Your task to perform on an android device: create a new album in the google photos Image 0: 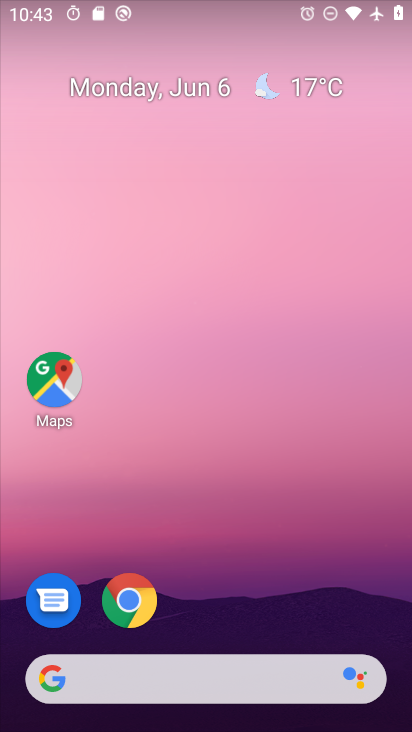
Step 0: press home button
Your task to perform on an android device: create a new album in the google photos Image 1: 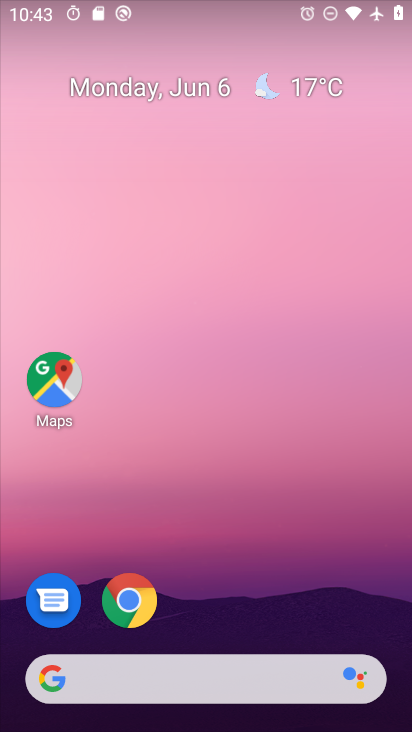
Step 1: drag from (279, 567) to (238, 66)
Your task to perform on an android device: create a new album in the google photos Image 2: 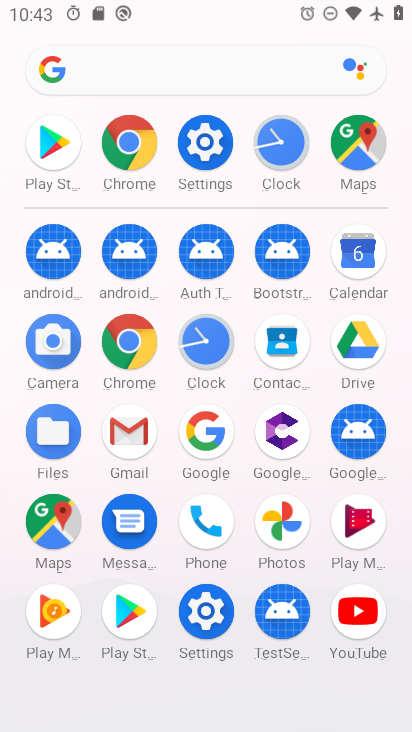
Step 2: click (286, 523)
Your task to perform on an android device: create a new album in the google photos Image 3: 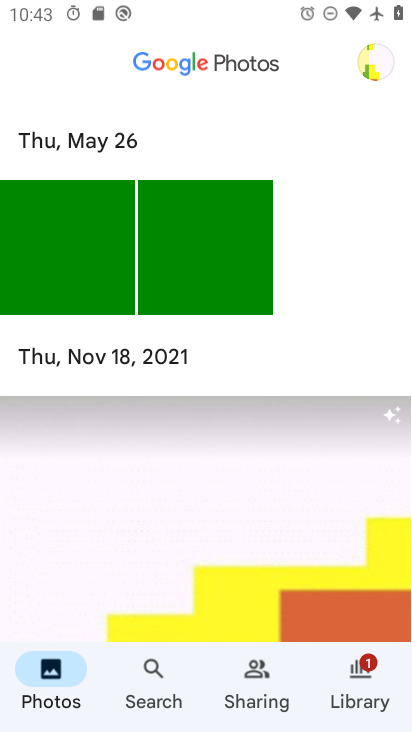
Step 3: click (369, 679)
Your task to perform on an android device: create a new album in the google photos Image 4: 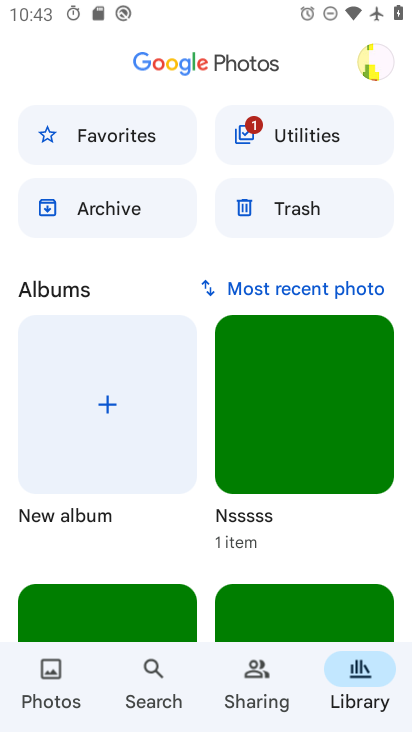
Step 4: click (115, 401)
Your task to perform on an android device: create a new album in the google photos Image 5: 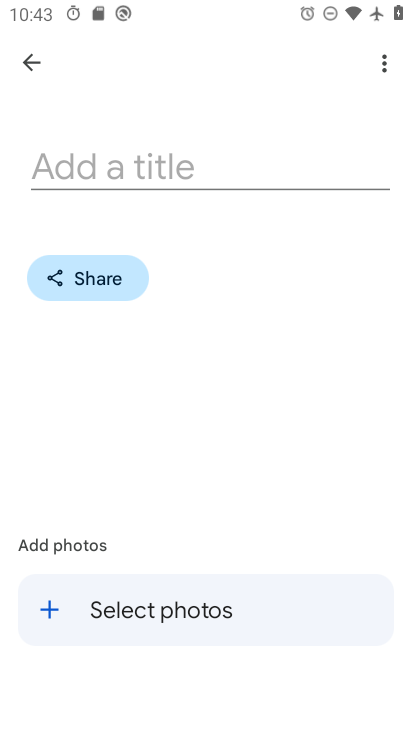
Step 5: click (184, 174)
Your task to perform on an android device: create a new album in the google photos Image 6: 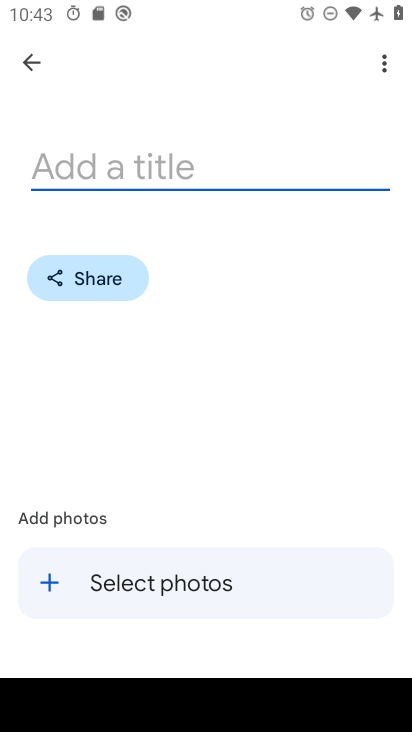
Step 6: type "fggfghhmj"
Your task to perform on an android device: create a new album in the google photos Image 7: 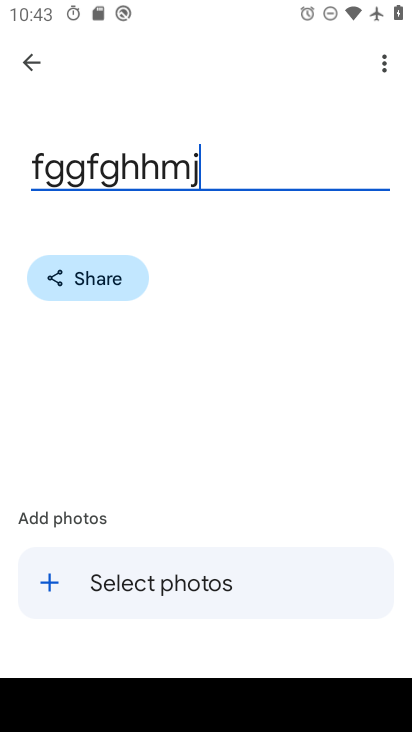
Step 7: type ""
Your task to perform on an android device: create a new album in the google photos Image 8: 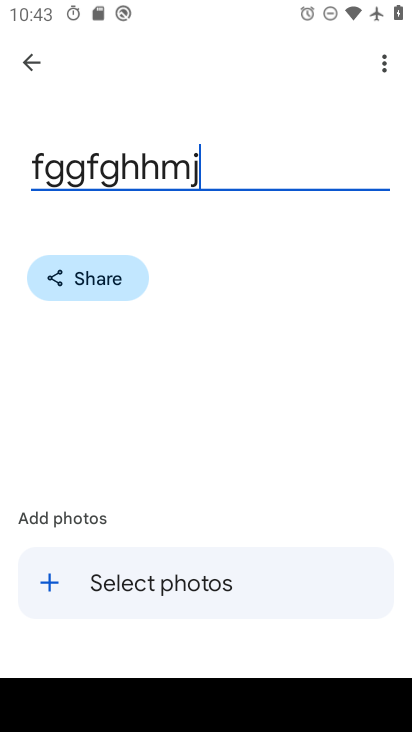
Step 8: click (176, 566)
Your task to perform on an android device: create a new album in the google photos Image 9: 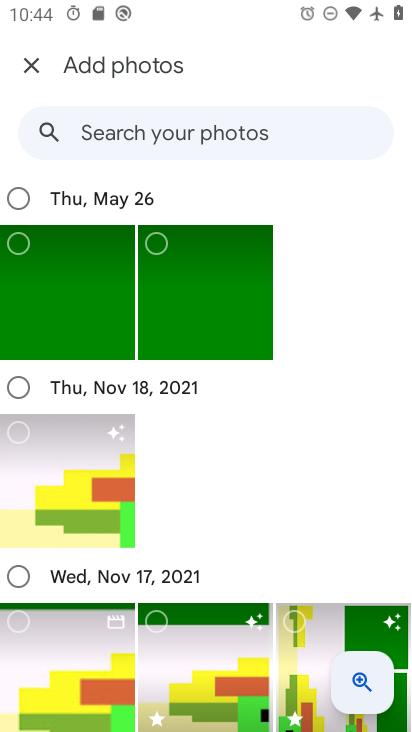
Step 9: click (70, 326)
Your task to perform on an android device: create a new album in the google photos Image 10: 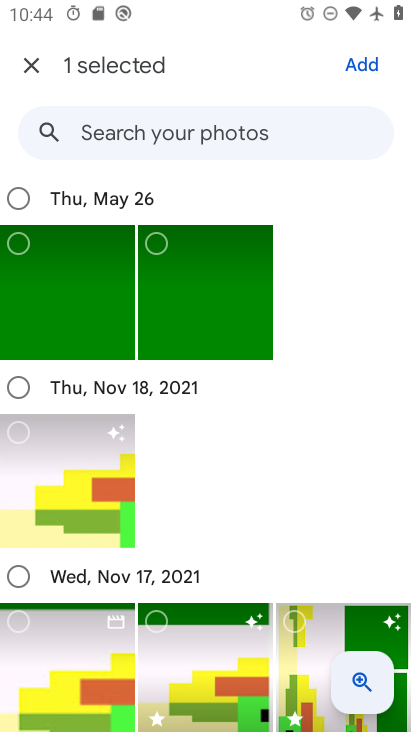
Step 10: click (74, 525)
Your task to perform on an android device: create a new album in the google photos Image 11: 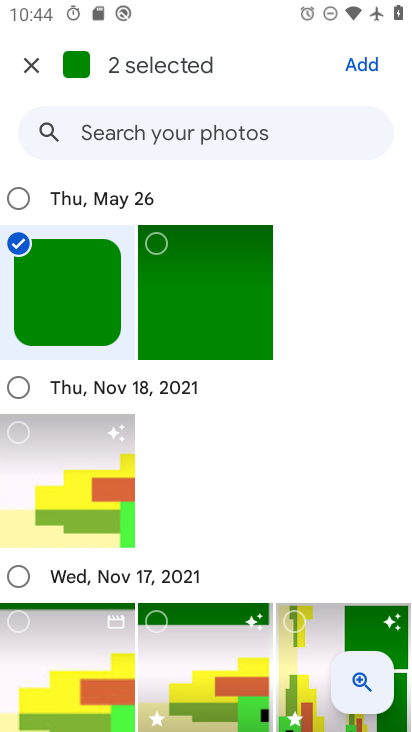
Step 11: click (188, 661)
Your task to perform on an android device: create a new album in the google photos Image 12: 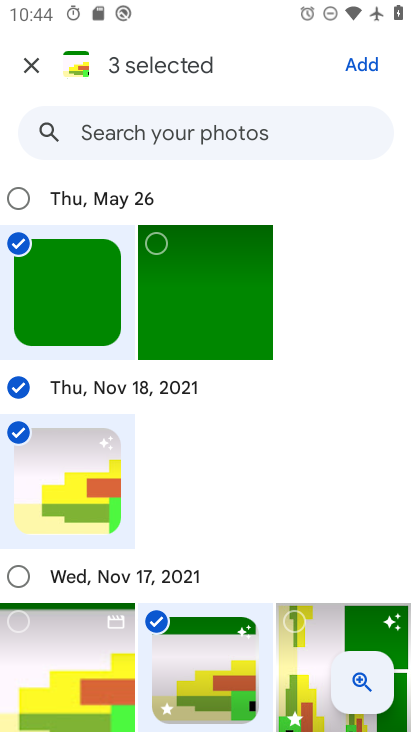
Step 12: click (362, 57)
Your task to perform on an android device: create a new album in the google photos Image 13: 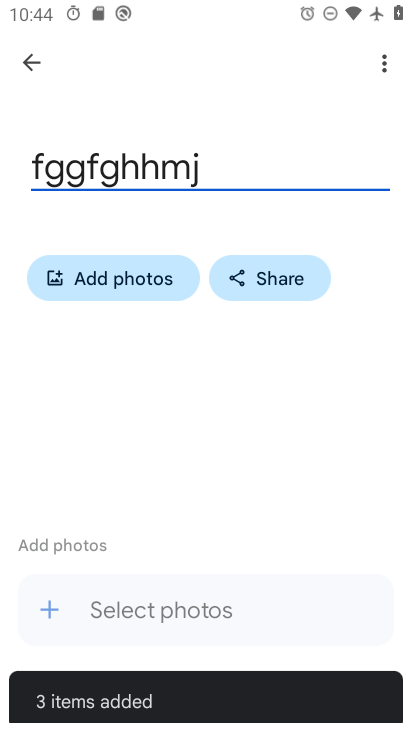
Step 13: task complete